Your task to perform on an android device: change notifications settings Image 0: 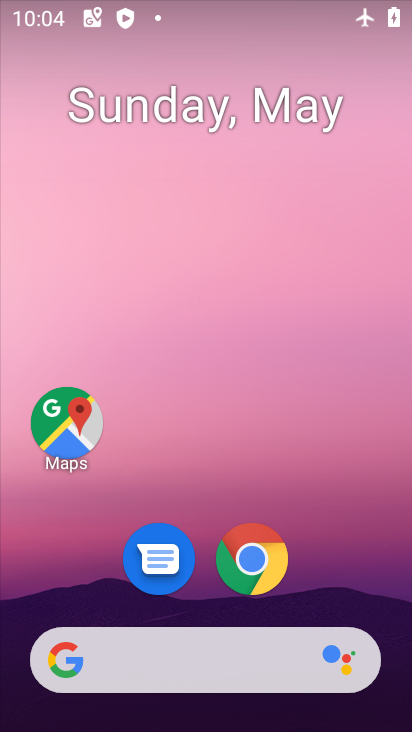
Step 0: drag from (216, 614) to (342, 16)
Your task to perform on an android device: change notifications settings Image 1: 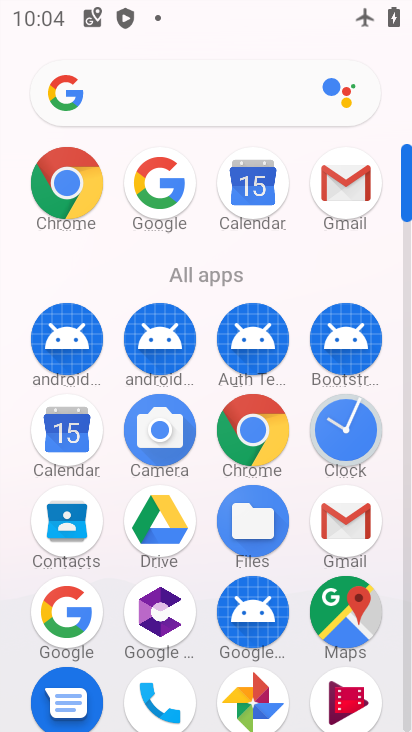
Step 1: drag from (109, 632) to (82, 130)
Your task to perform on an android device: change notifications settings Image 2: 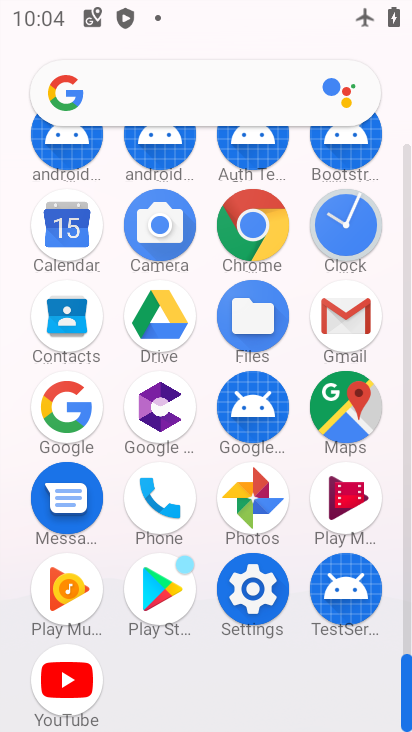
Step 2: click (266, 567)
Your task to perform on an android device: change notifications settings Image 3: 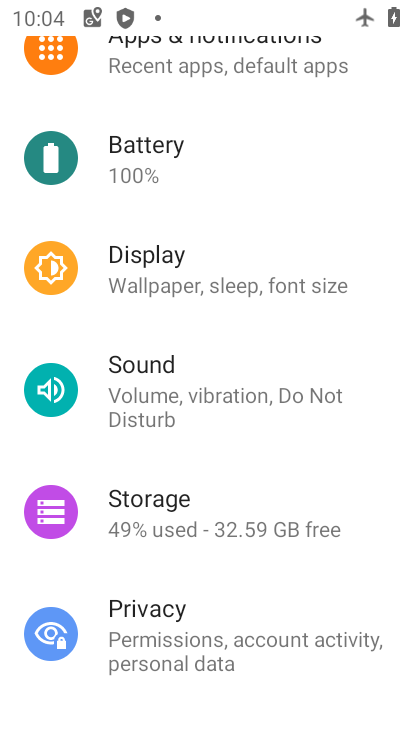
Step 3: click (186, 81)
Your task to perform on an android device: change notifications settings Image 4: 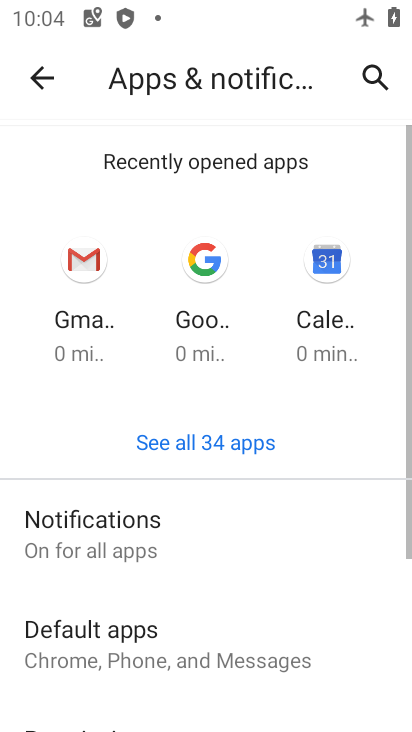
Step 4: click (161, 548)
Your task to perform on an android device: change notifications settings Image 5: 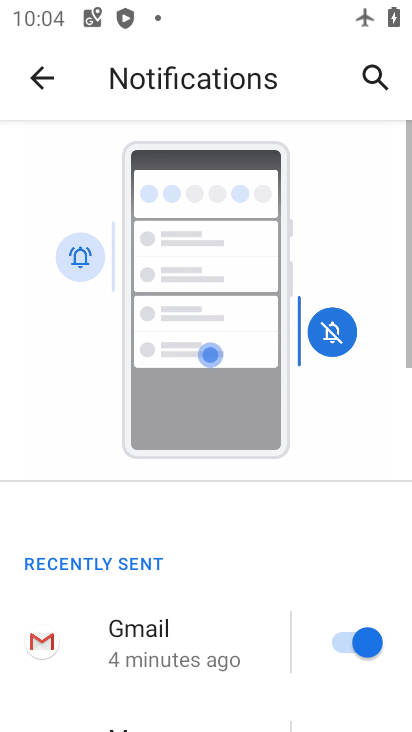
Step 5: drag from (210, 603) to (177, 27)
Your task to perform on an android device: change notifications settings Image 6: 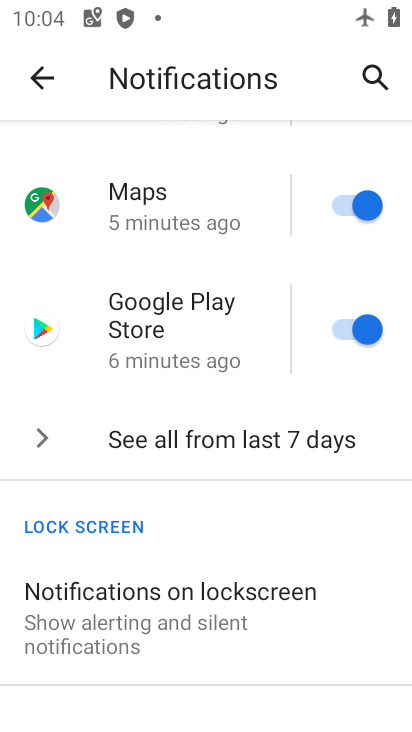
Step 6: drag from (202, 650) to (175, 109)
Your task to perform on an android device: change notifications settings Image 7: 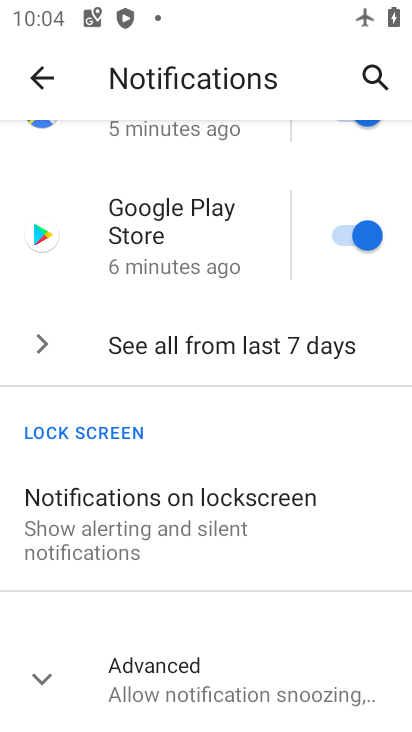
Step 7: click (220, 667)
Your task to perform on an android device: change notifications settings Image 8: 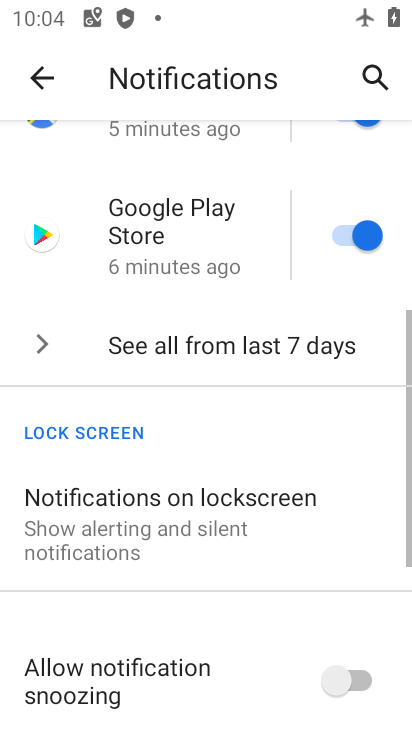
Step 8: task complete